Your task to perform on an android device: Open display settings Image 0: 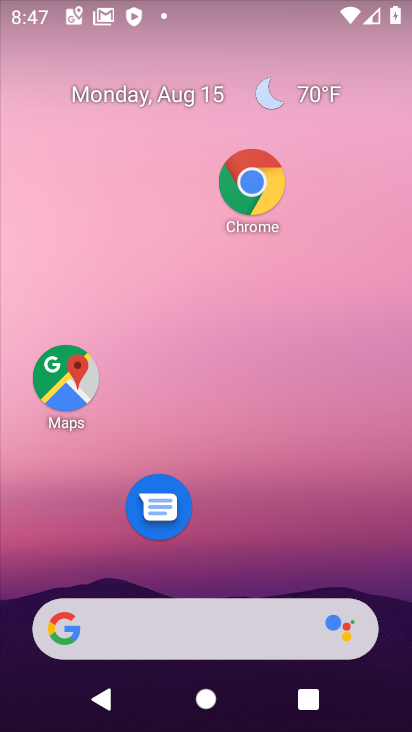
Step 0: drag from (242, 573) to (190, 56)
Your task to perform on an android device: Open display settings Image 1: 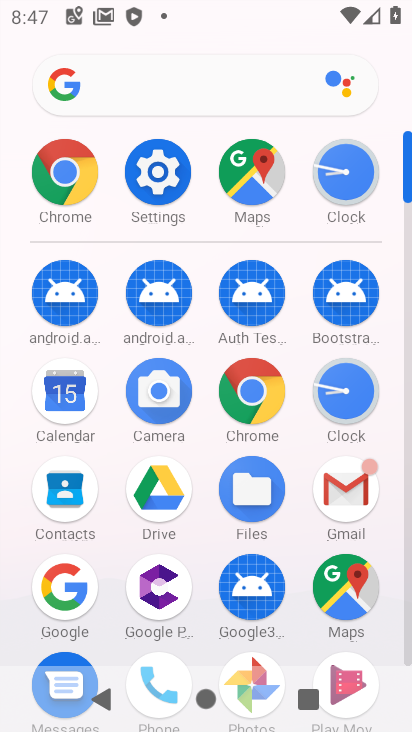
Step 1: click (149, 209)
Your task to perform on an android device: Open display settings Image 2: 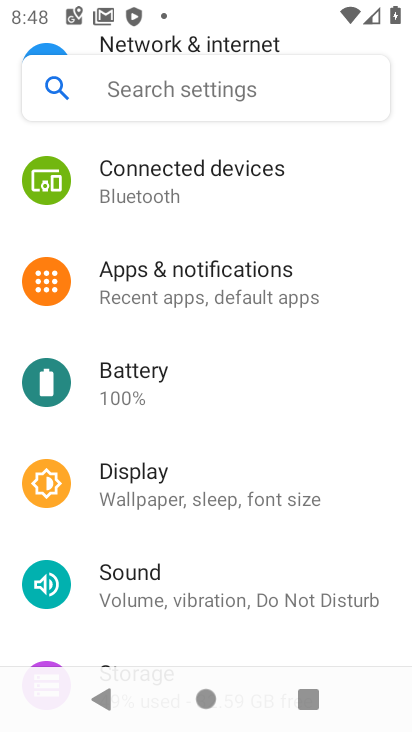
Step 2: click (157, 488)
Your task to perform on an android device: Open display settings Image 3: 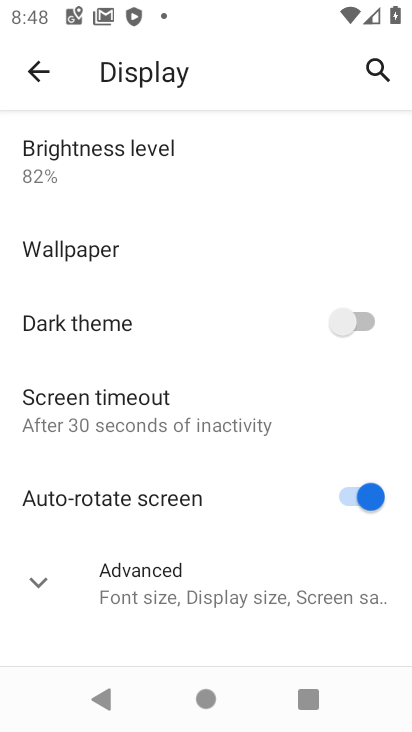
Step 3: task complete